Your task to perform on an android device: Open the Play Movies app and select the watchlist tab. Image 0: 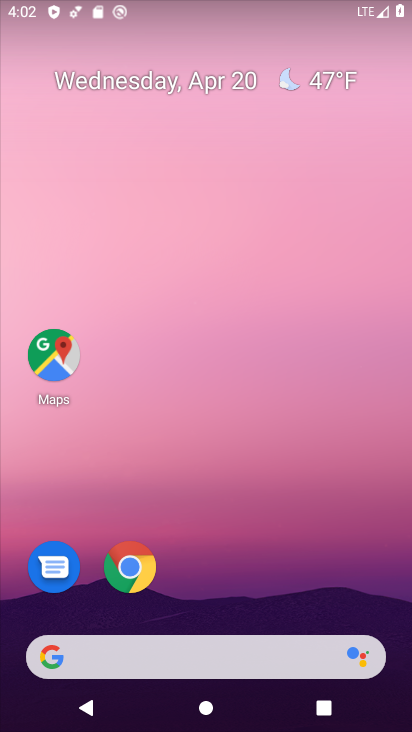
Step 0: drag from (204, 487) to (180, 77)
Your task to perform on an android device: Open the Play Movies app and select the watchlist tab. Image 1: 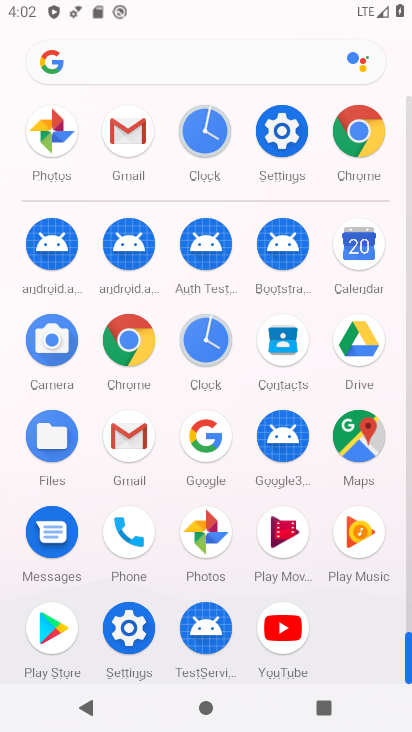
Step 1: click (275, 535)
Your task to perform on an android device: Open the Play Movies app and select the watchlist tab. Image 2: 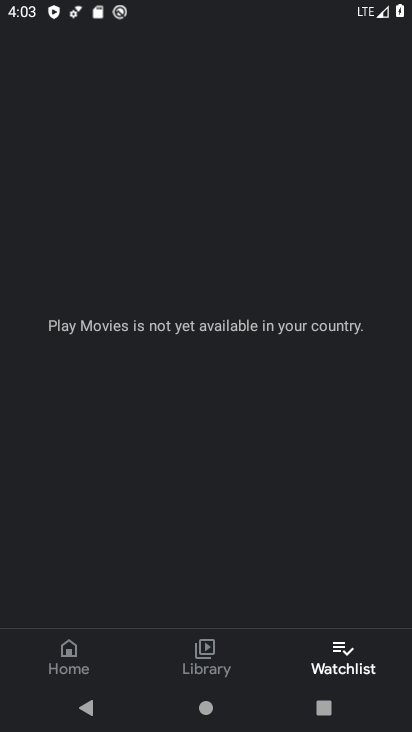
Step 2: task complete